Your task to perform on an android device: toggle show notifications on the lock screen Image 0: 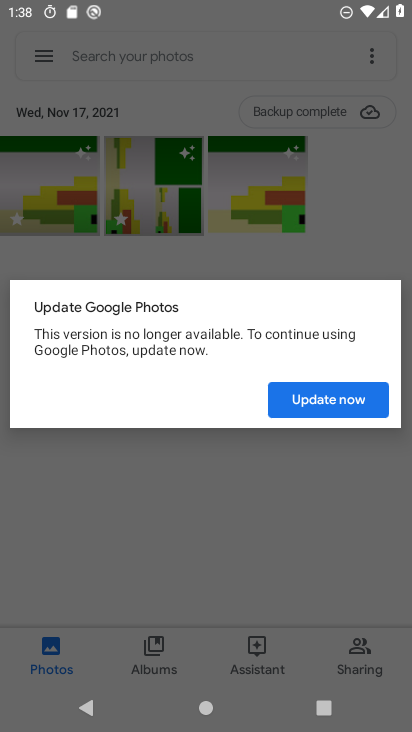
Step 0: press home button
Your task to perform on an android device: toggle show notifications on the lock screen Image 1: 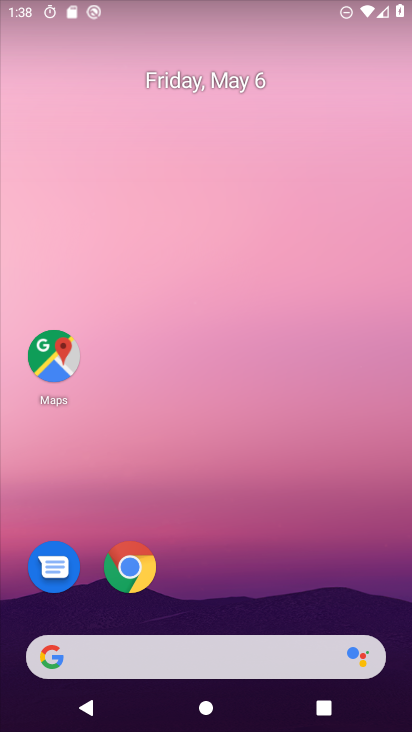
Step 1: drag from (261, 694) to (231, 256)
Your task to perform on an android device: toggle show notifications on the lock screen Image 2: 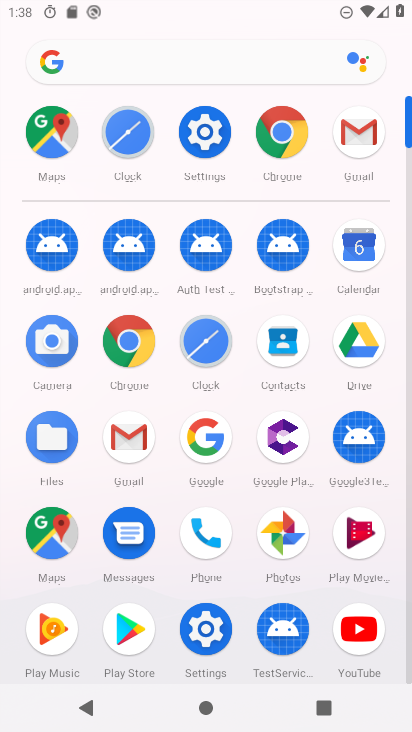
Step 2: click (177, 128)
Your task to perform on an android device: toggle show notifications on the lock screen Image 3: 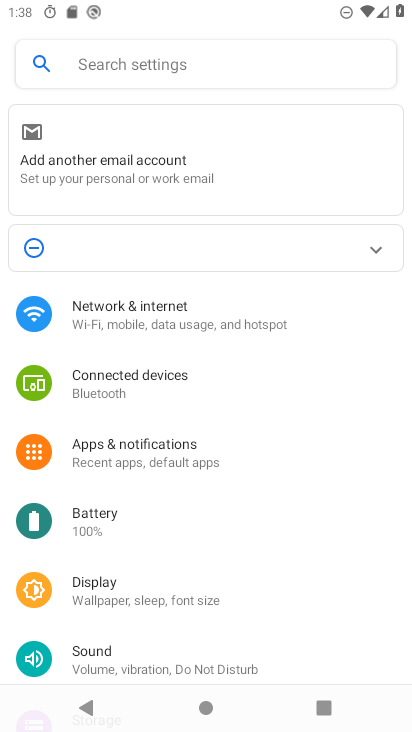
Step 3: click (173, 59)
Your task to perform on an android device: toggle show notifications on the lock screen Image 4: 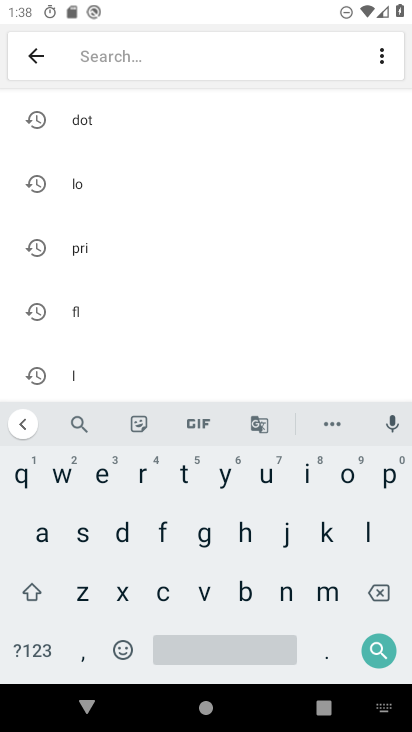
Step 4: click (284, 591)
Your task to perform on an android device: toggle show notifications on the lock screen Image 5: 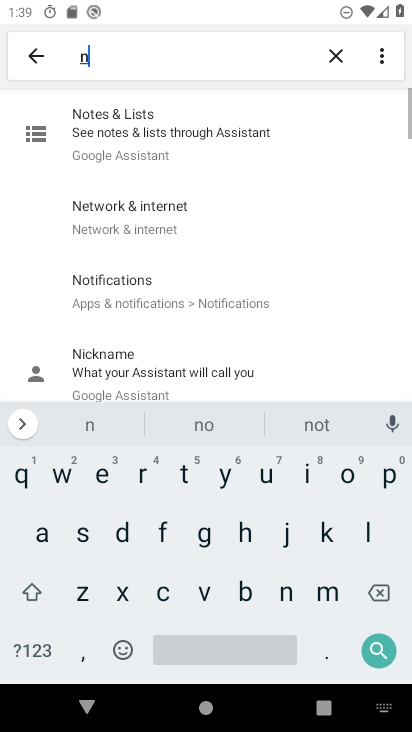
Step 5: click (339, 484)
Your task to perform on an android device: toggle show notifications on the lock screen Image 6: 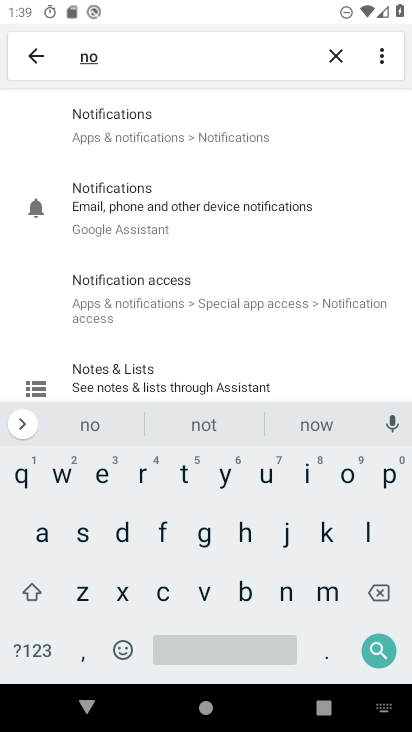
Step 6: click (164, 133)
Your task to perform on an android device: toggle show notifications on the lock screen Image 7: 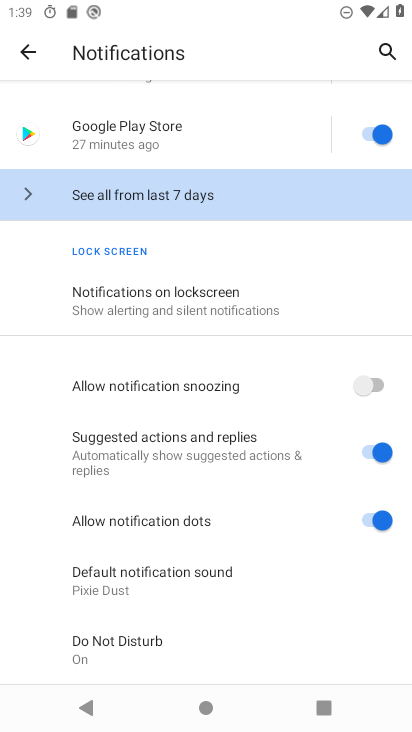
Step 7: click (147, 292)
Your task to perform on an android device: toggle show notifications on the lock screen Image 8: 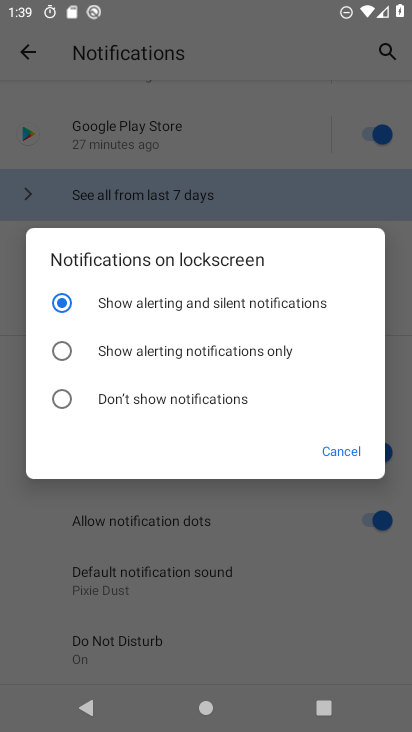
Step 8: task complete